Your task to perform on an android device: Clear the shopping cart on target. Search for lenovo thinkpad on target, select the first entry, and add it to the cart. Image 0: 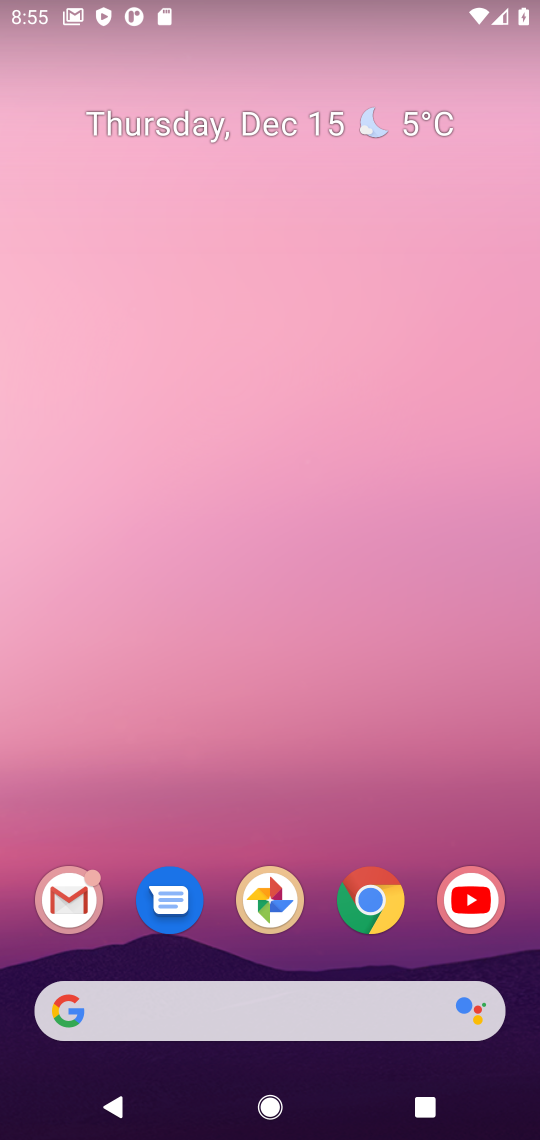
Step 0: click (362, 902)
Your task to perform on an android device: Clear the shopping cart on target. Search for lenovo thinkpad on target, select the first entry, and add it to the cart. Image 1: 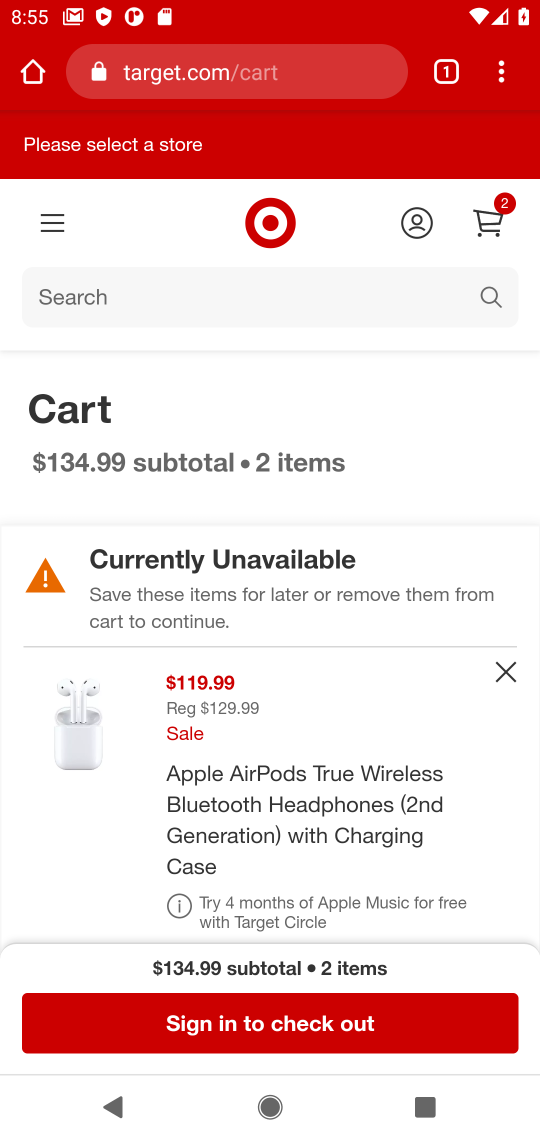
Step 1: click (507, 680)
Your task to perform on an android device: Clear the shopping cart on target. Search for lenovo thinkpad on target, select the first entry, and add it to the cart. Image 2: 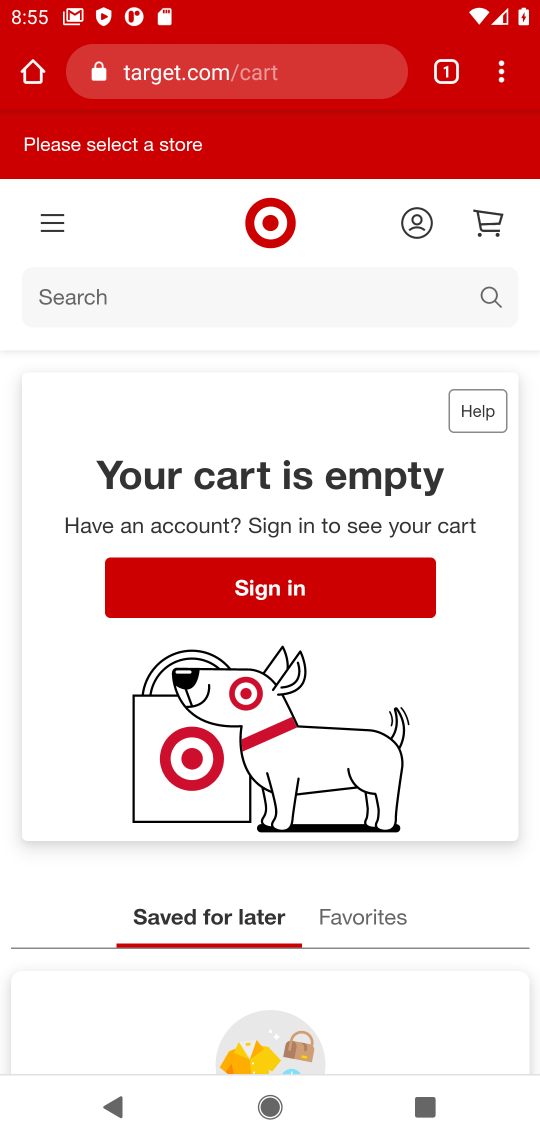
Step 2: click (208, 304)
Your task to perform on an android device: Clear the shopping cart on target. Search for lenovo thinkpad on target, select the first entry, and add it to the cart. Image 3: 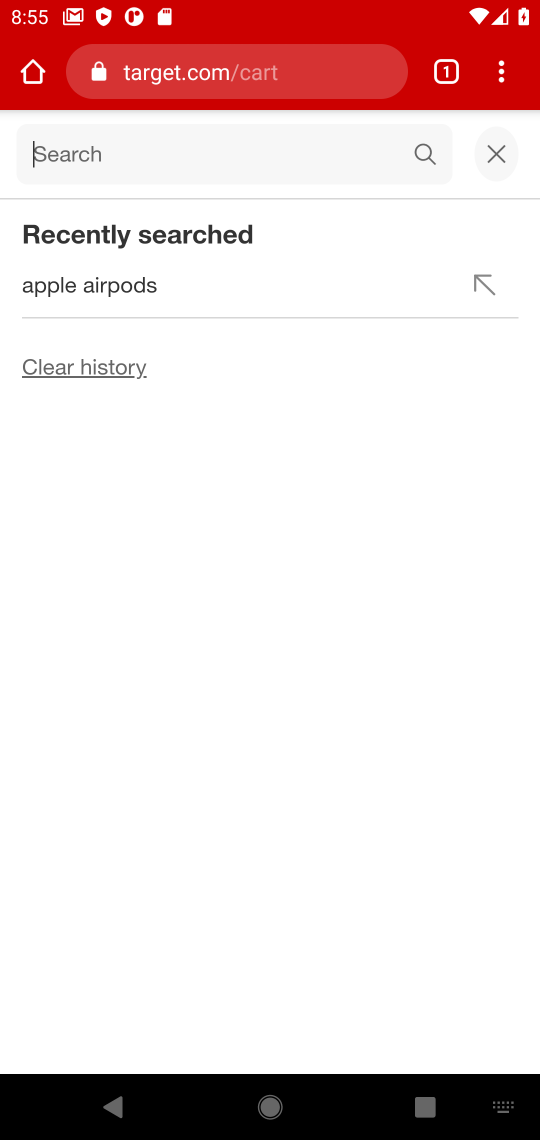
Step 3: type "lenovo thinkpad"
Your task to perform on an android device: Clear the shopping cart on target. Search for lenovo thinkpad on target, select the first entry, and add it to the cart. Image 4: 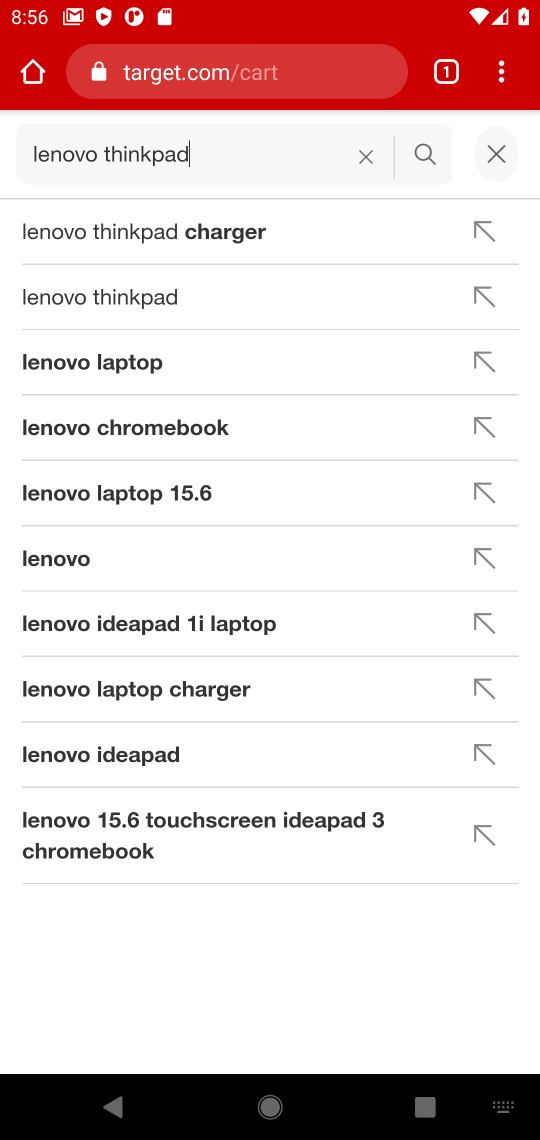
Step 4: press enter
Your task to perform on an android device: Clear the shopping cart on target. Search for lenovo thinkpad on target, select the first entry, and add it to the cart. Image 5: 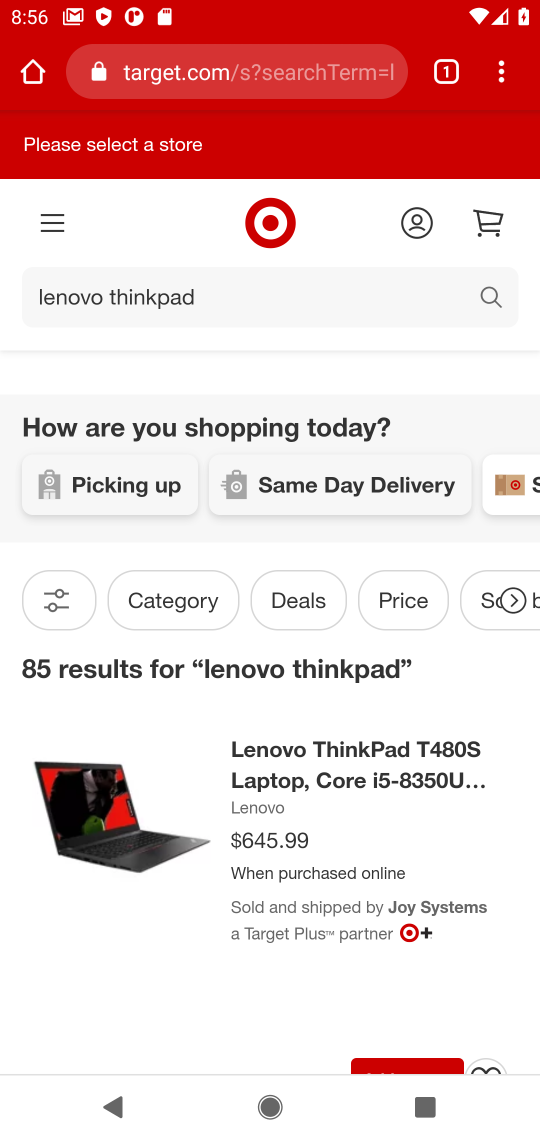
Step 5: click (347, 777)
Your task to perform on an android device: Clear the shopping cart on target. Search for lenovo thinkpad on target, select the first entry, and add it to the cart. Image 6: 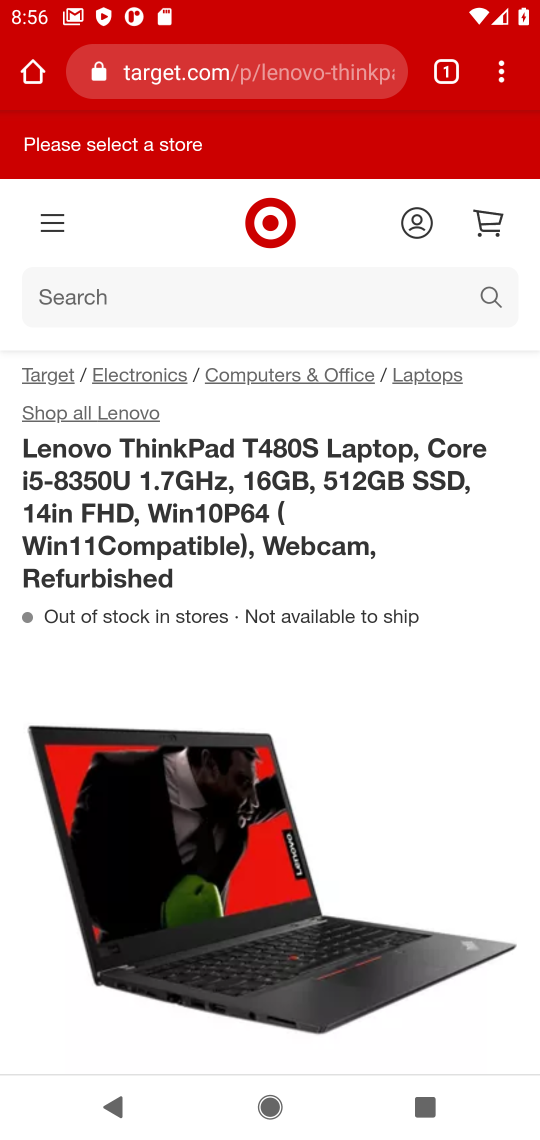
Step 6: drag from (384, 813) to (302, 128)
Your task to perform on an android device: Clear the shopping cart on target. Search for lenovo thinkpad on target, select the first entry, and add it to the cart. Image 7: 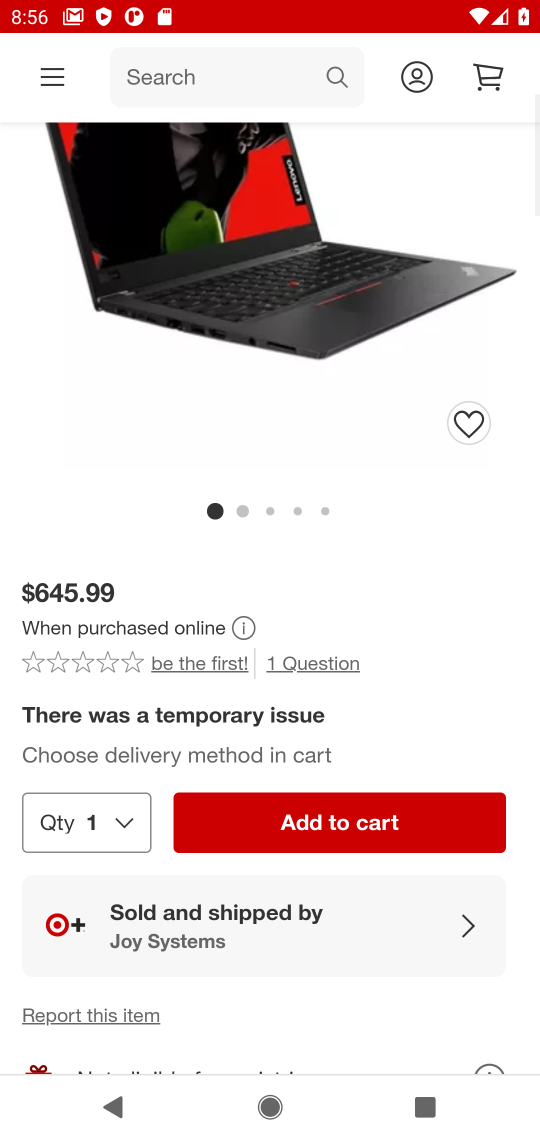
Step 7: click (292, 844)
Your task to perform on an android device: Clear the shopping cart on target. Search for lenovo thinkpad on target, select the first entry, and add it to the cart. Image 8: 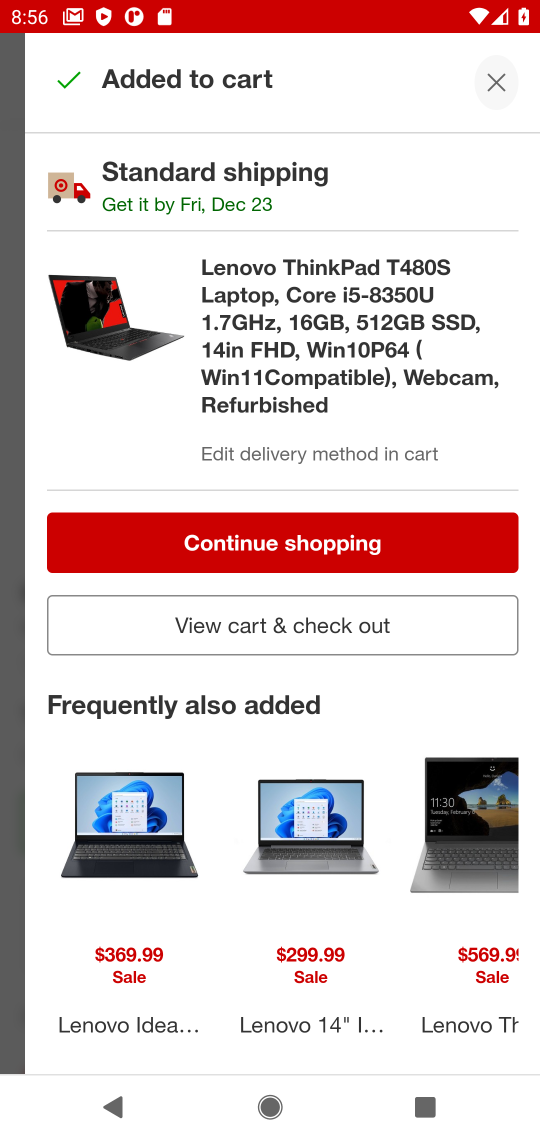
Step 8: click (308, 637)
Your task to perform on an android device: Clear the shopping cart on target. Search for lenovo thinkpad on target, select the first entry, and add it to the cart. Image 9: 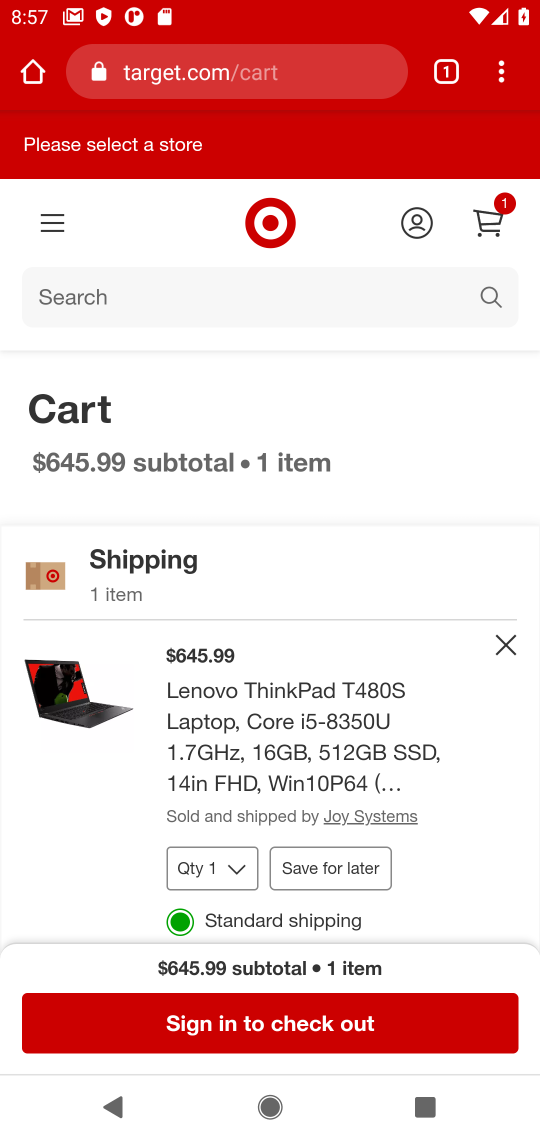
Step 9: task complete